Your task to perform on an android device: toggle airplane mode Image 0: 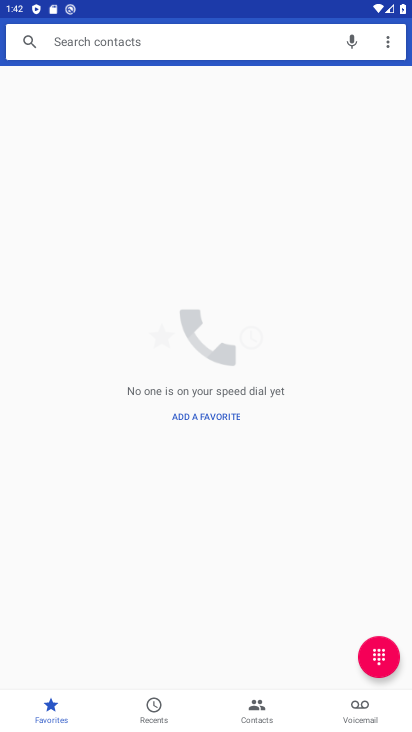
Step 0: press back button
Your task to perform on an android device: toggle airplane mode Image 1: 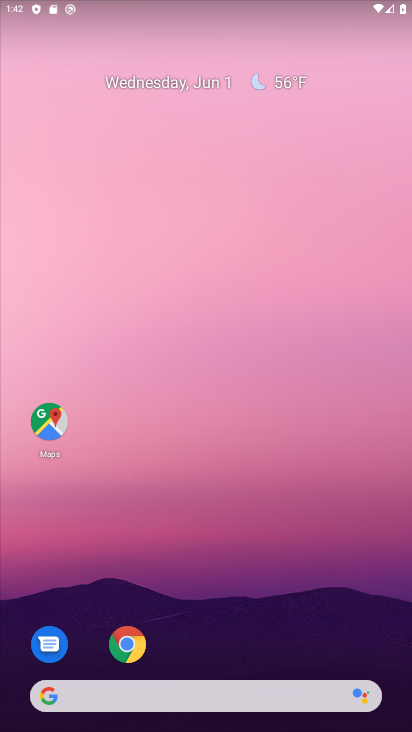
Step 1: drag from (342, 587) to (266, 10)
Your task to perform on an android device: toggle airplane mode Image 2: 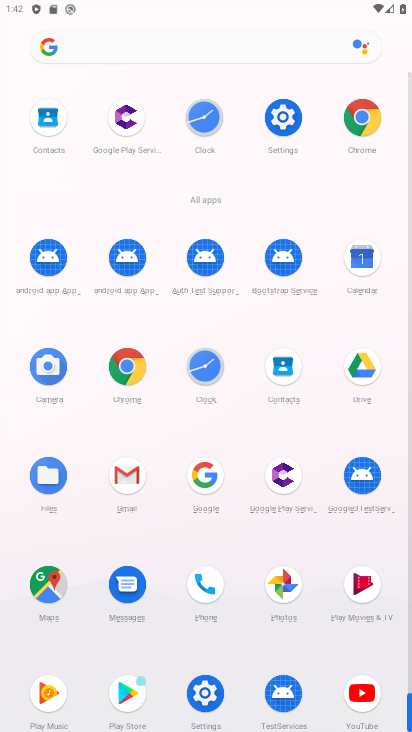
Step 2: drag from (27, 506) to (19, 149)
Your task to perform on an android device: toggle airplane mode Image 3: 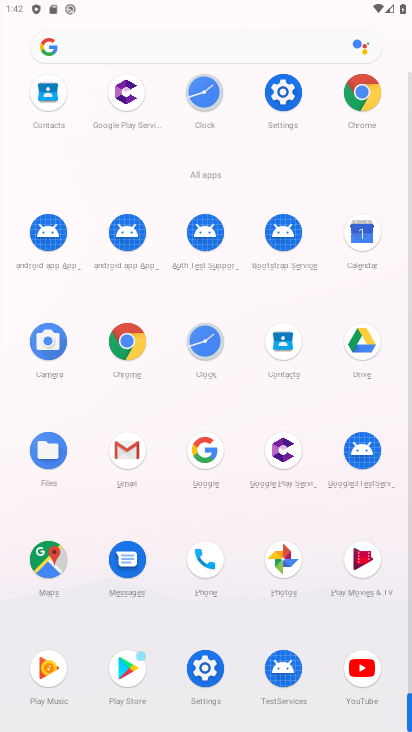
Step 3: click (204, 665)
Your task to perform on an android device: toggle airplane mode Image 4: 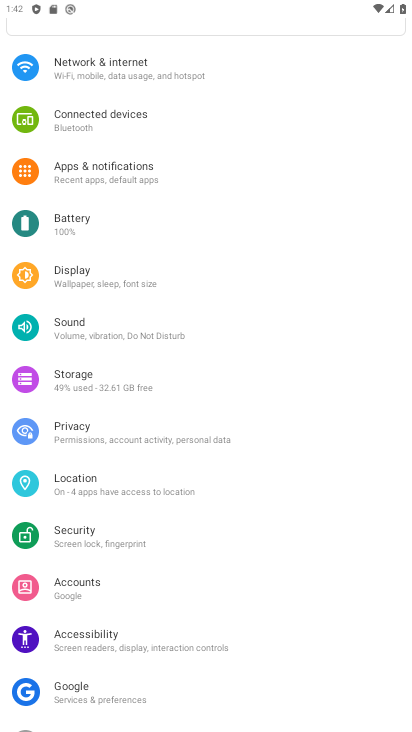
Step 4: drag from (264, 97) to (264, 537)
Your task to perform on an android device: toggle airplane mode Image 5: 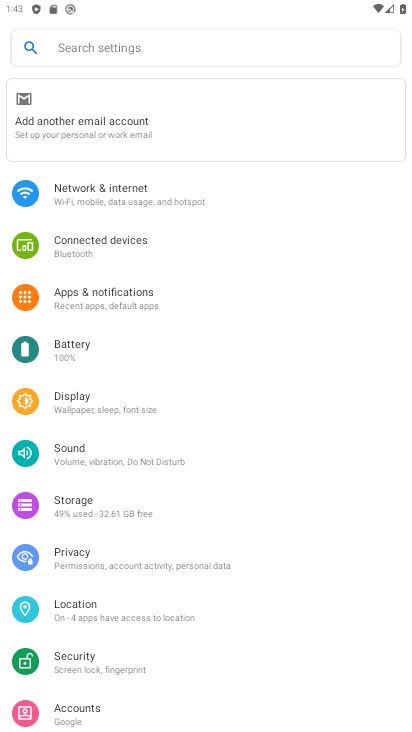
Step 5: click (160, 191)
Your task to perform on an android device: toggle airplane mode Image 6: 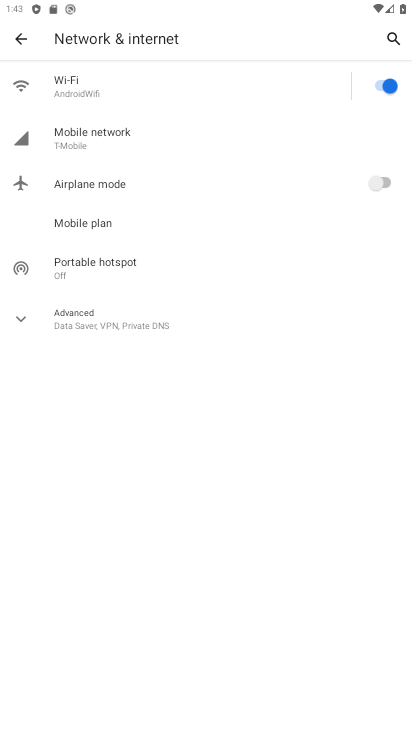
Step 6: click (382, 181)
Your task to perform on an android device: toggle airplane mode Image 7: 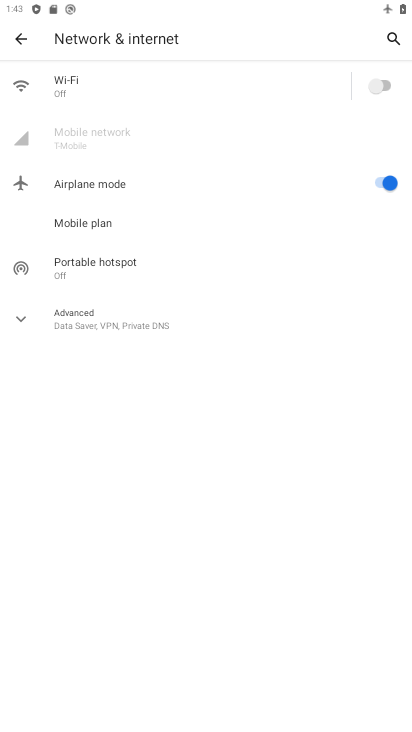
Step 7: task complete